Your task to perform on an android device: toggle sleep mode Image 0: 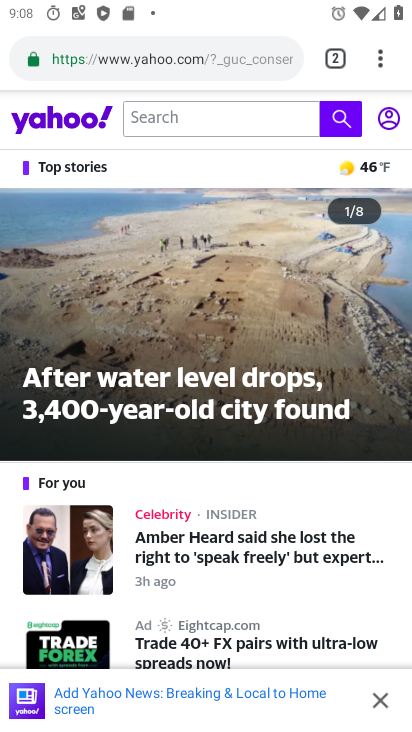
Step 0: press home button
Your task to perform on an android device: toggle sleep mode Image 1: 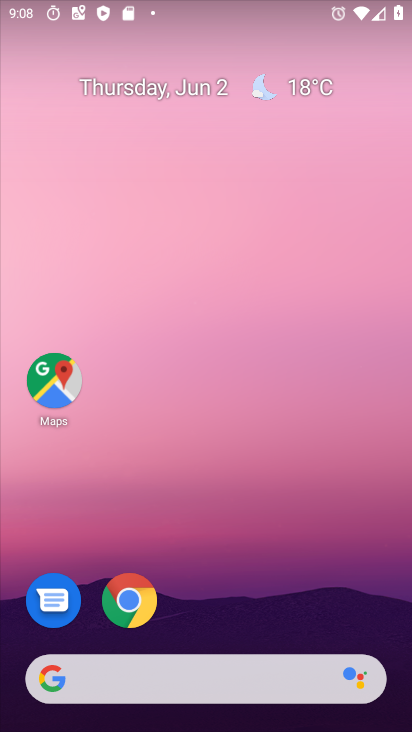
Step 1: drag from (354, 569) to (362, 187)
Your task to perform on an android device: toggle sleep mode Image 2: 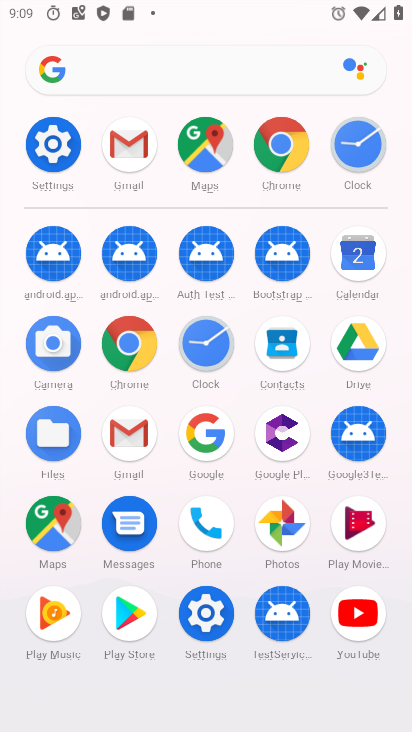
Step 2: click (222, 621)
Your task to perform on an android device: toggle sleep mode Image 3: 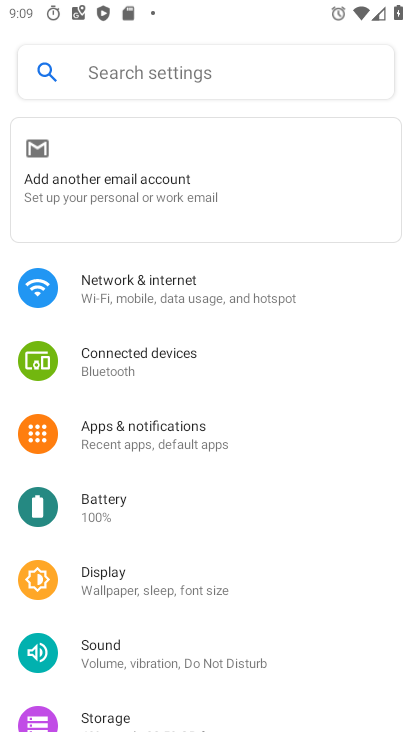
Step 3: drag from (313, 374) to (320, 488)
Your task to perform on an android device: toggle sleep mode Image 4: 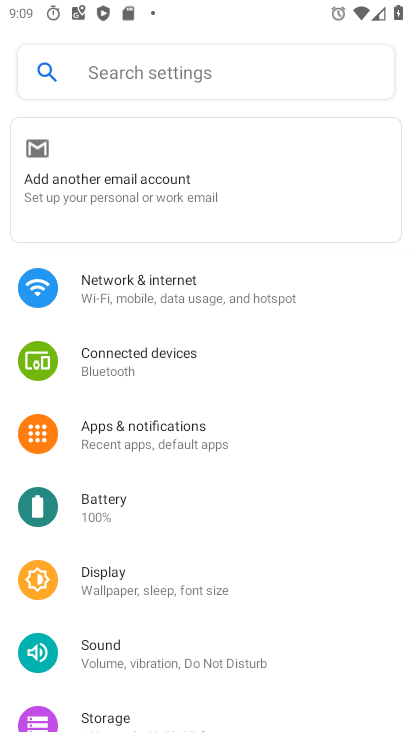
Step 4: drag from (338, 524) to (337, 376)
Your task to perform on an android device: toggle sleep mode Image 5: 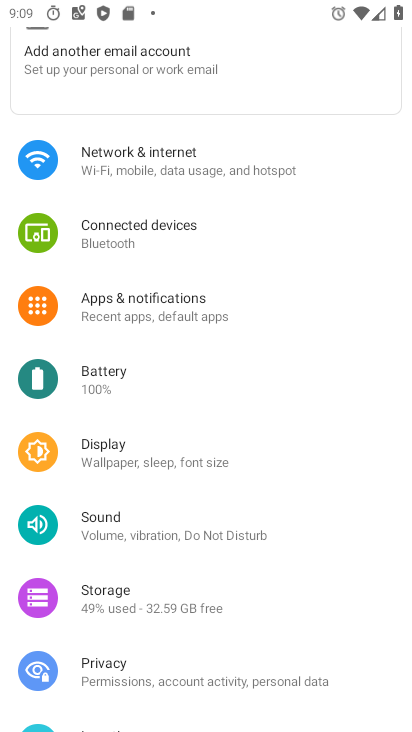
Step 5: drag from (328, 534) to (345, 317)
Your task to perform on an android device: toggle sleep mode Image 6: 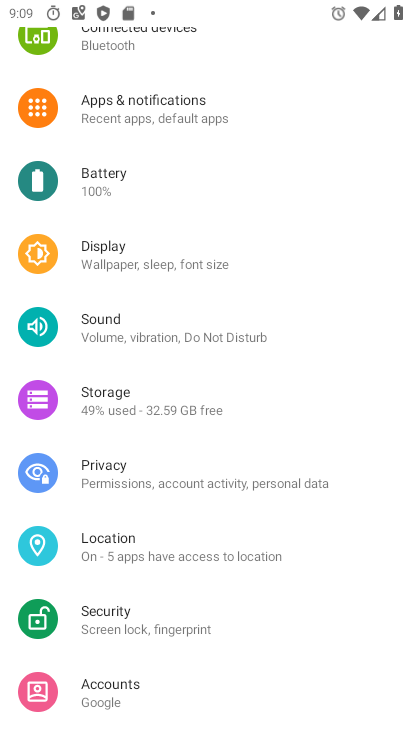
Step 6: drag from (332, 517) to (351, 335)
Your task to perform on an android device: toggle sleep mode Image 7: 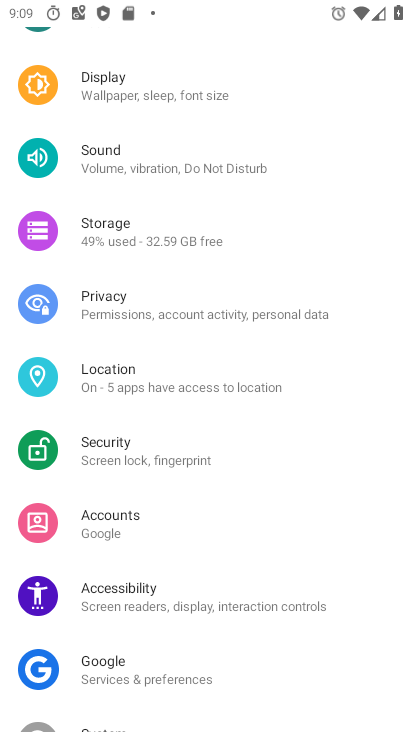
Step 7: drag from (323, 537) to (333, 387)
Your task to perform on an android device: toggle sleep mode Image 8: 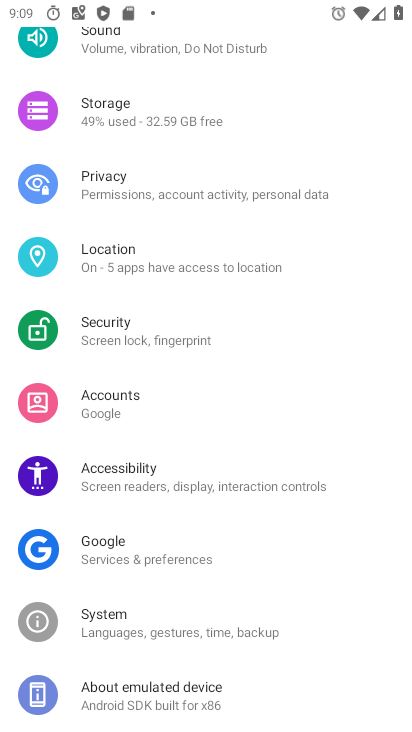
Step 8: drag from (332, 558) to (337, 400)
Your task to perform on an android device: toggle sleep mode Image 9: 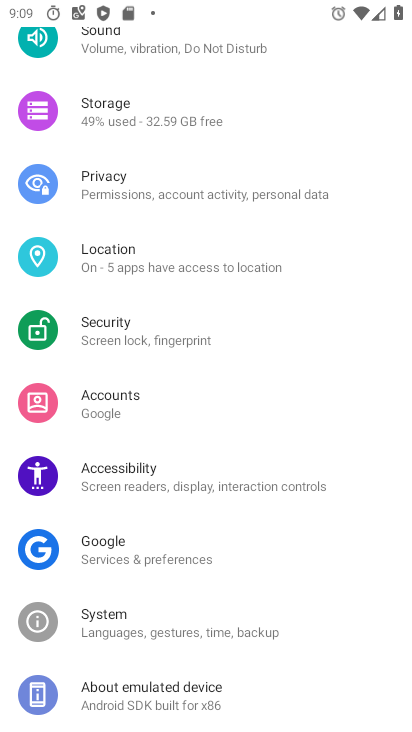
Step 9: drag from (335, 338) to (334, 477)
Your task to perform on an android device: toggle sleep mode Image 10: 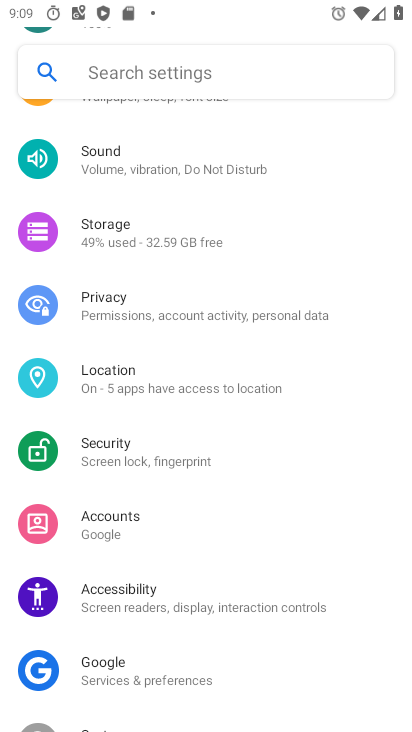
Step 10: drag from (353, 227) to (343, 368)
Your task to perform on an android device: toggle sleep mode Image 11: 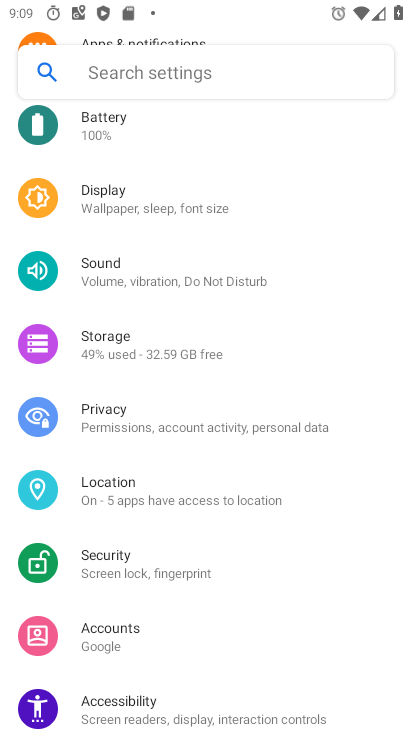
Step 11: drag from (342, 195) to (344, 423)
Your task to perform on an android device: toggle sleep mode Image 12: 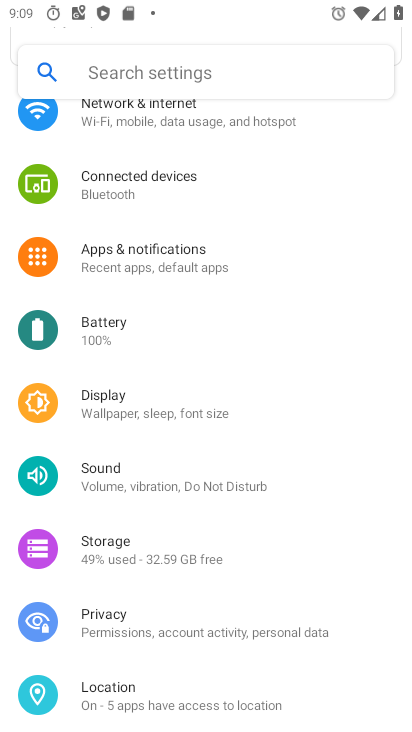
Step 12: click (208, 396)
Your task to perform on an android device: toggle sleep mode Image 13: 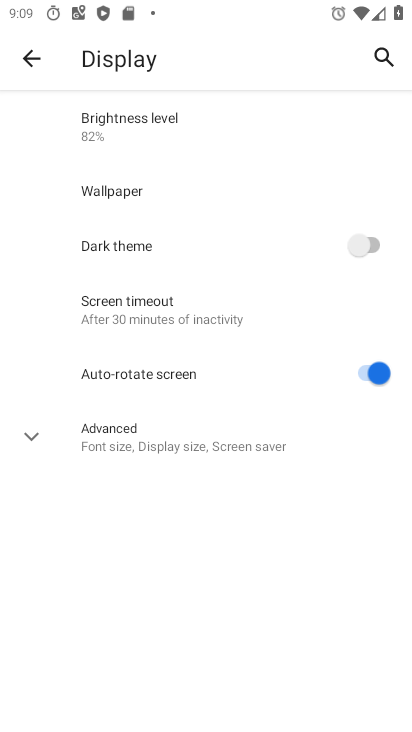
Step 13: task complete